Your task to perform on an android device: Open notification settings Image 0: 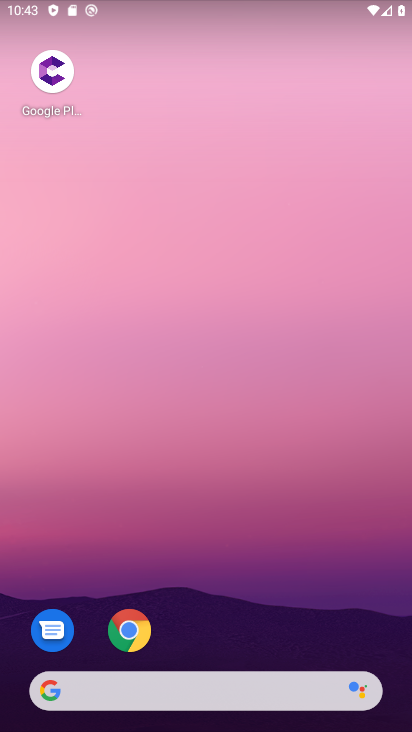
Step 0: drag from (211, 668) to (210, 257)
Your task to perform on an android device: Open notification settings Image 1: 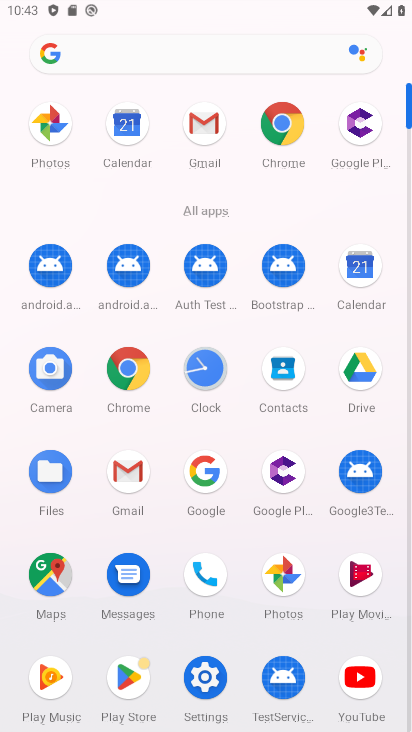
Step 1: click (197, 683)
Your task to perform on an android device: Open notification settings Image 2: 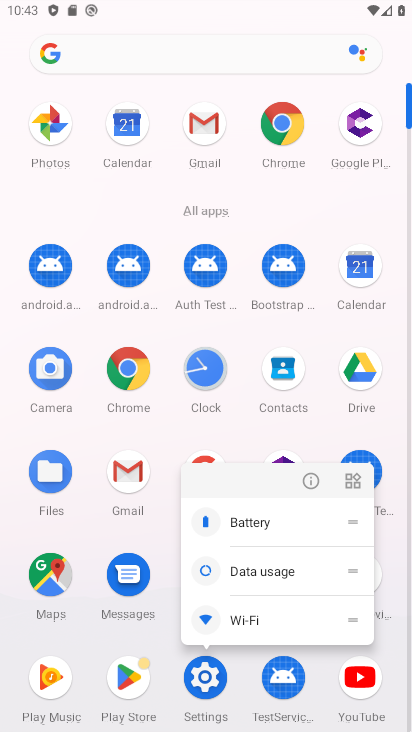
Step 2: click (200, 684)
Your task to perform on an android device: Open notification settings Image 3: 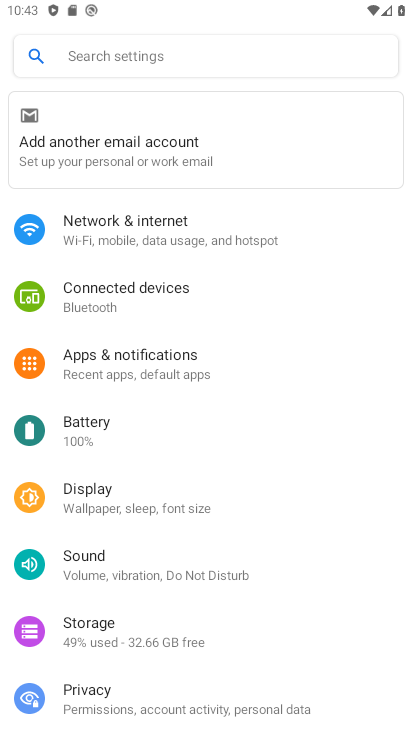
Step 3: click (127, 355)
Your task to perform on an android device: Open notification settings Image 4: 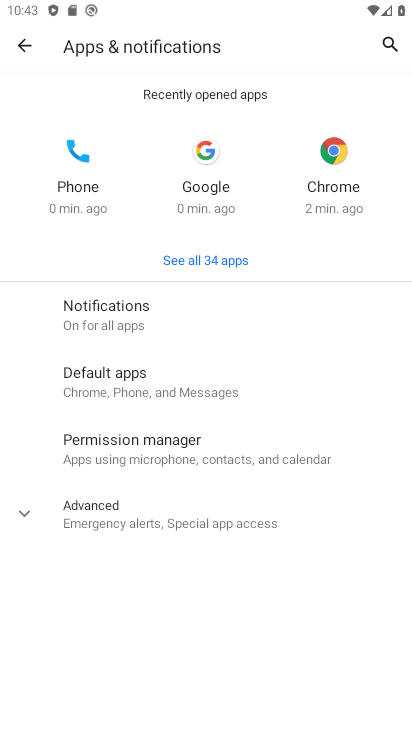
Step 4: click (99, 520)
Your task to perform on an android device: Open notification settings Image 5: 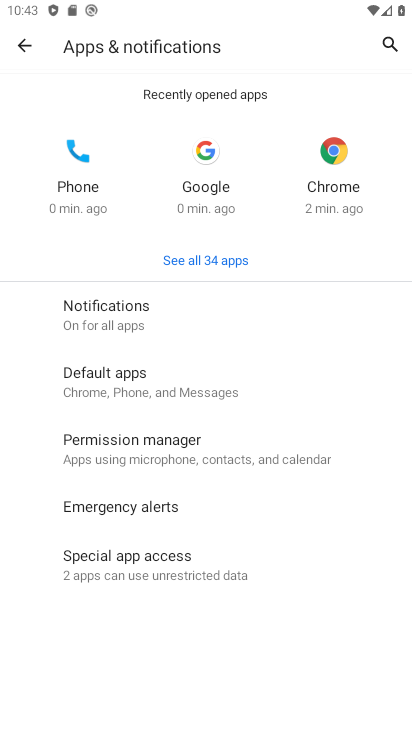
Step 5: task complete